Your task to perform on an android device: Show me the alarms in the clock app Image 0: 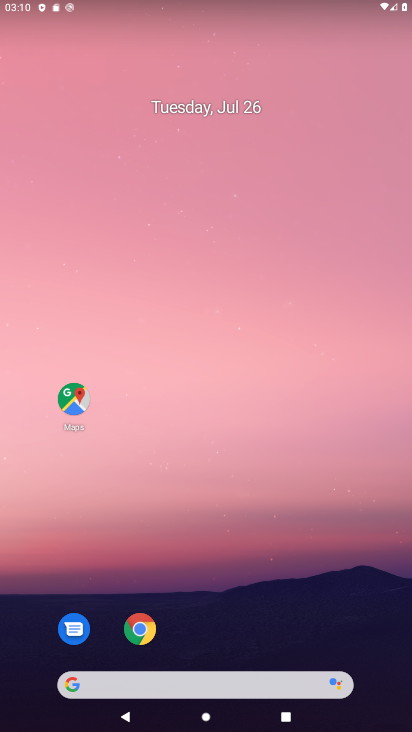
Step 0: press home button
Your task to perform on an android device: Show me the alarms in the clock app Image 1: 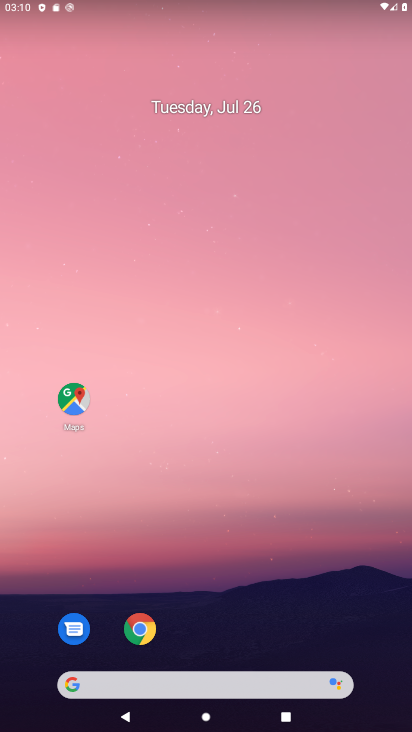
Step 1: drag from (277, 620) to (294, 79)
Your task to perform on an android device: Show me the alarms in the clock app Image 2: 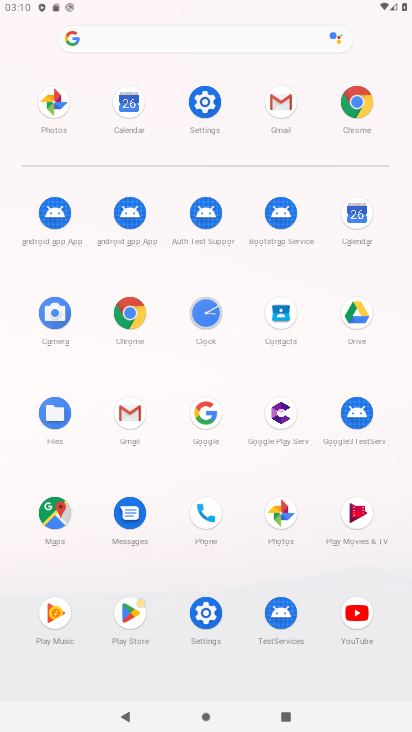
Step 2: click (211, 313)
Your task to perform on an android device: Show me the alarms in the clock app Image 3: 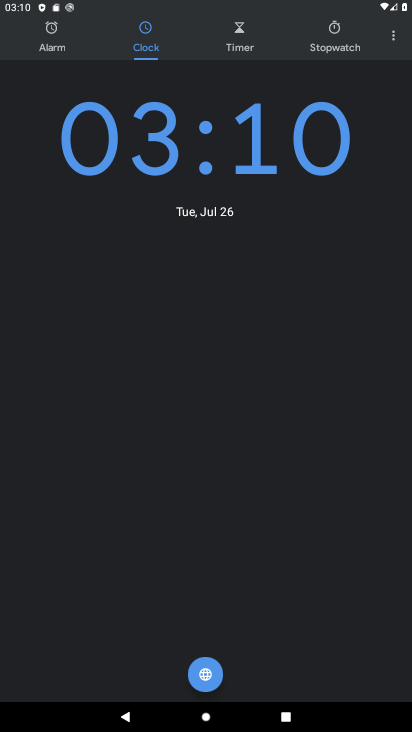
Step 3: click (44, 43)
Your task to perform on an android device: Show me the alarms in the clock app Image 4: 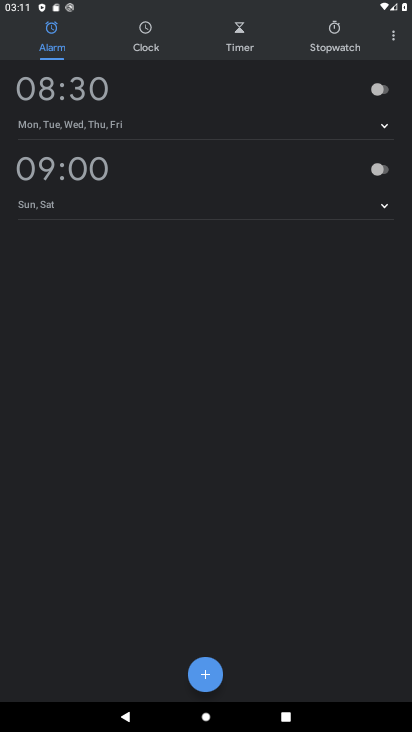
Step 4: task complete